Your task to perform on an android device: delete a single message in the gmail app Image 0: 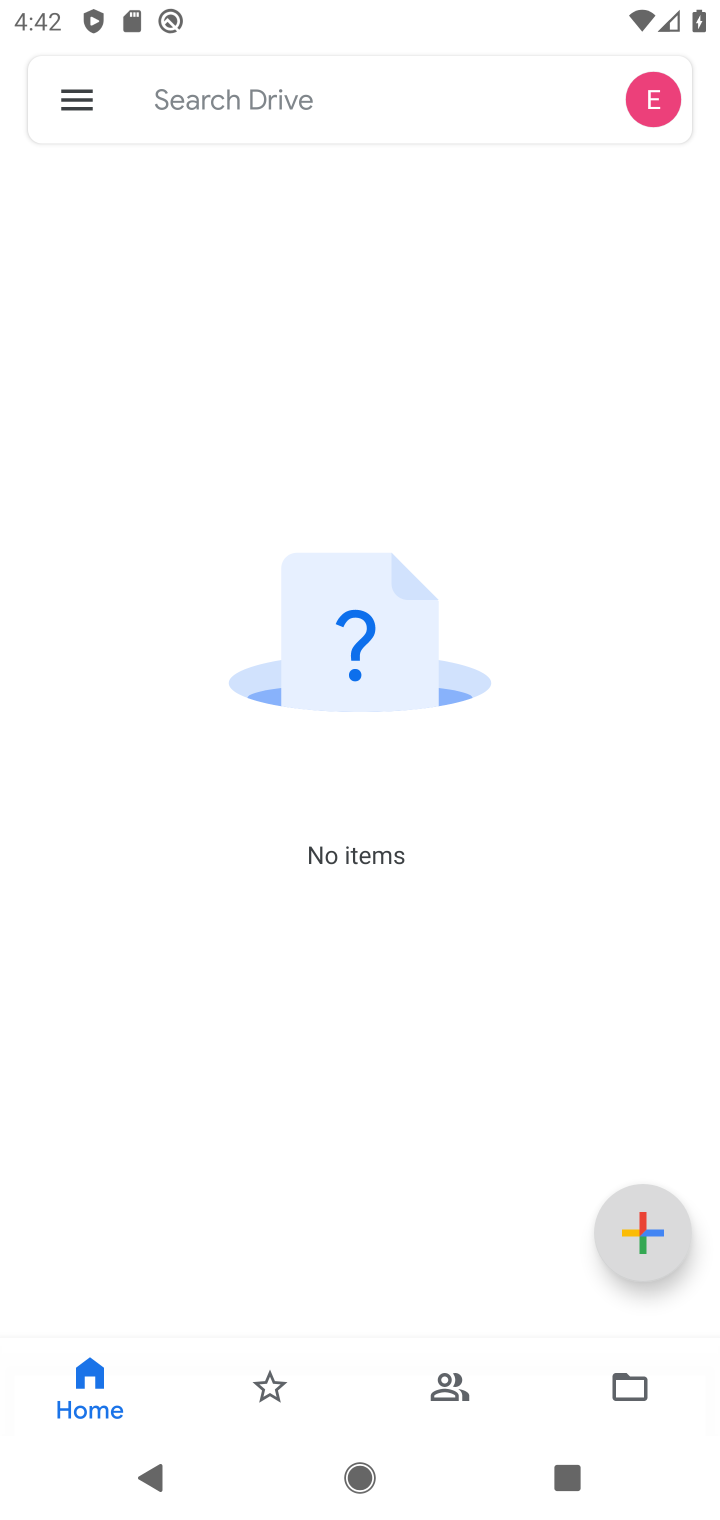
Step 0: press home button
Your task to perform on an android device: delete a single message in the gmail app Image 1: 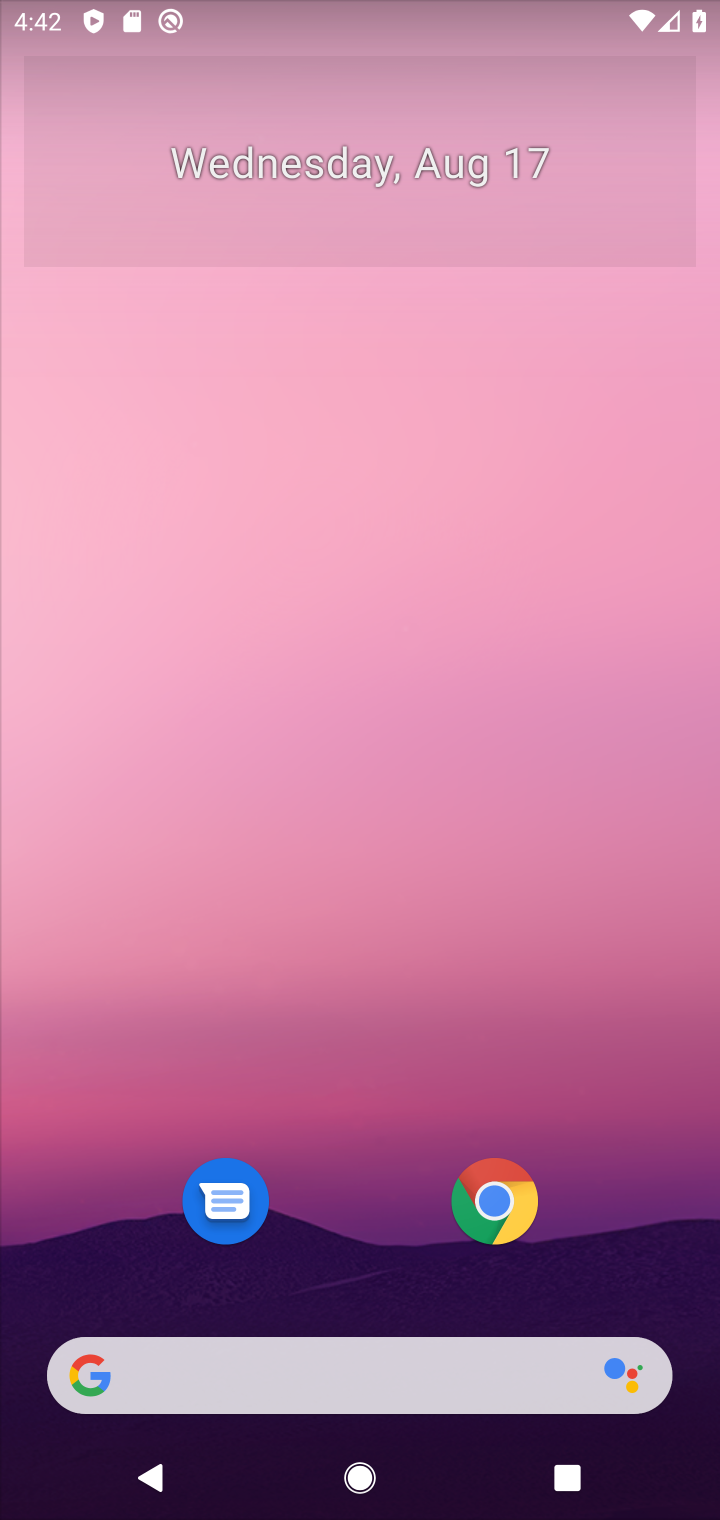
Step 1: drag from (351, 1213) to (436, 41)
Your task to perform on an android device: delete a single message in the gmail app Image 2: 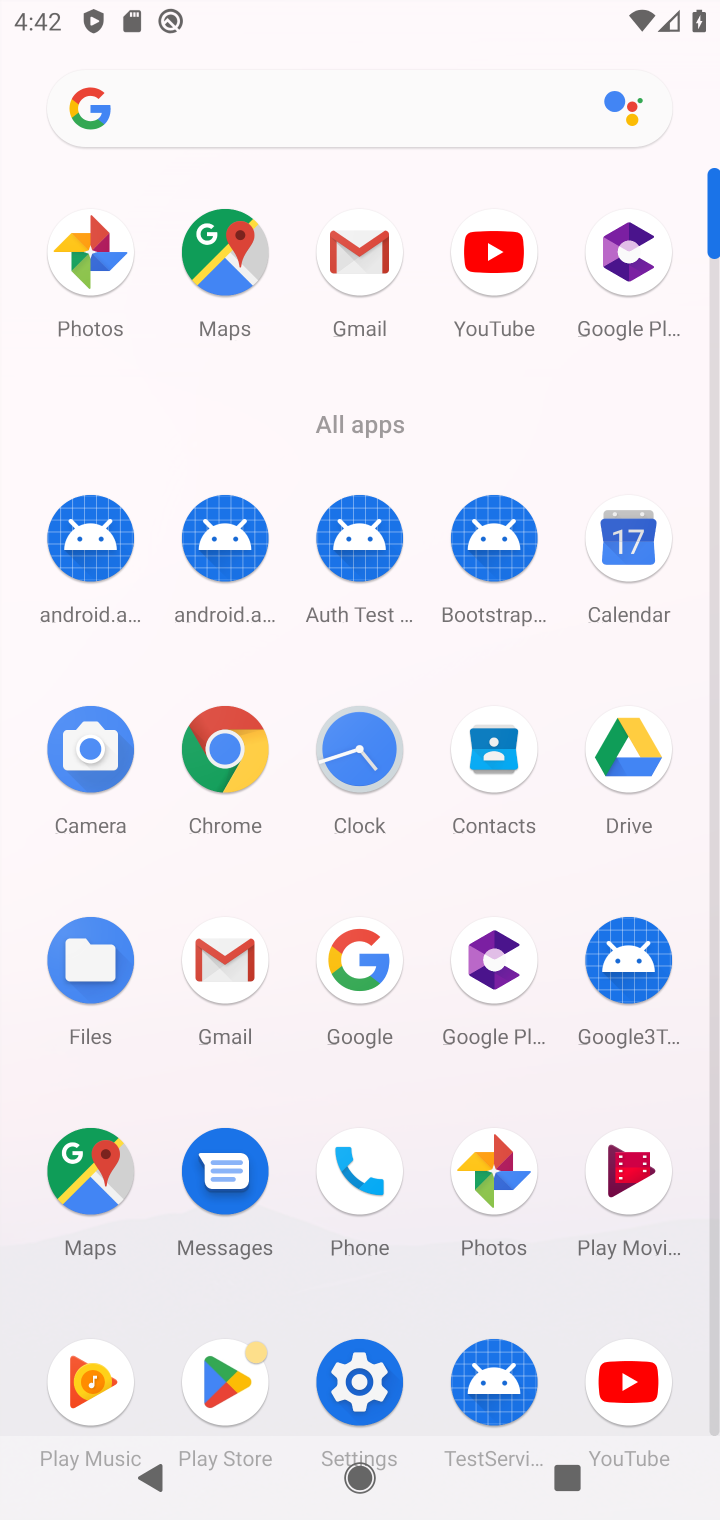
Step 2: click (371, 260)
Your task to perform on an android device: delete a single message in the gmail app Image 3: 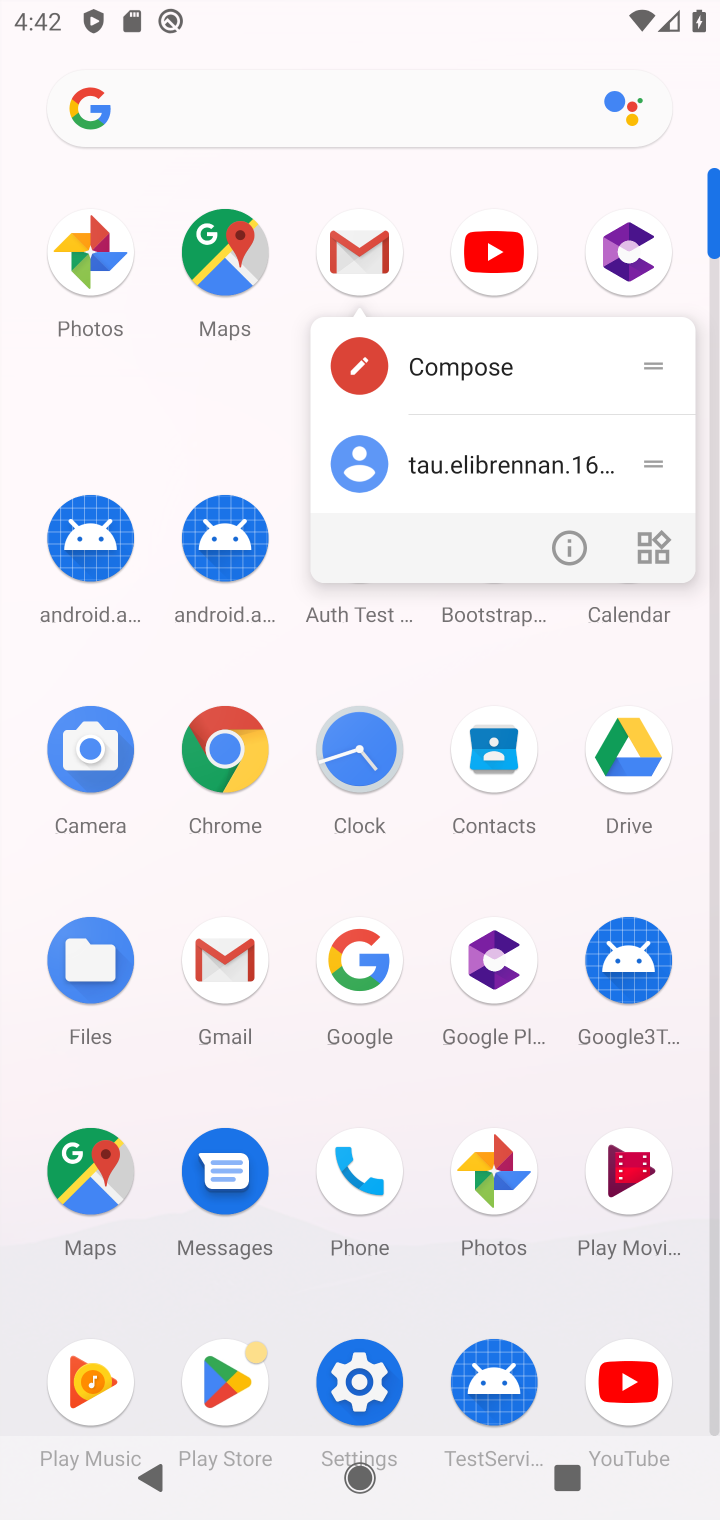
Step 3: click (371, 260)
Your task to perform on an android device: delete a single message in the gmail app Image 4: 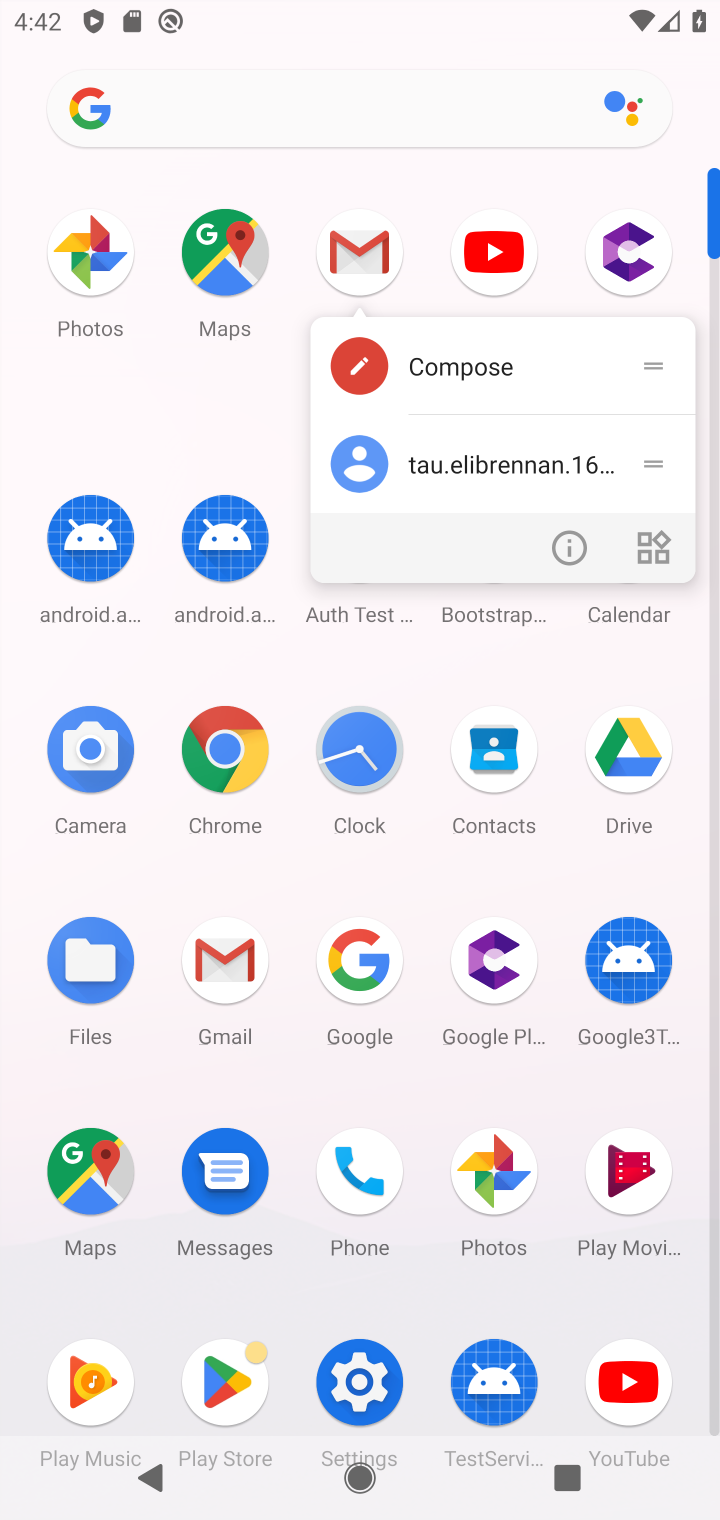
Step 4: click (371, 260)
Your task to perform on an android device: delete a single message in the gmail app Image 5: 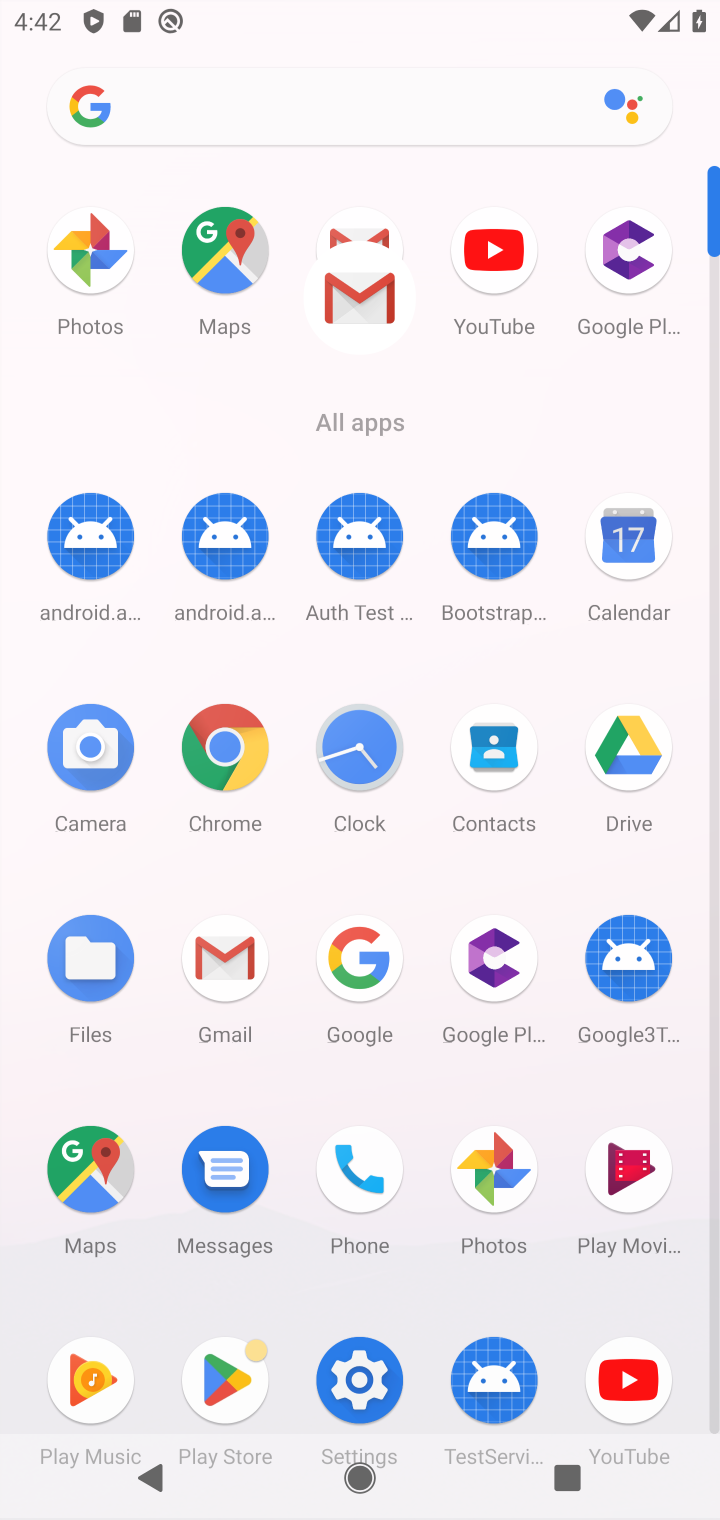
Step 5: click (371, 260)
Your task to perform on an android device: delete a single message in the gmail app Image 6: 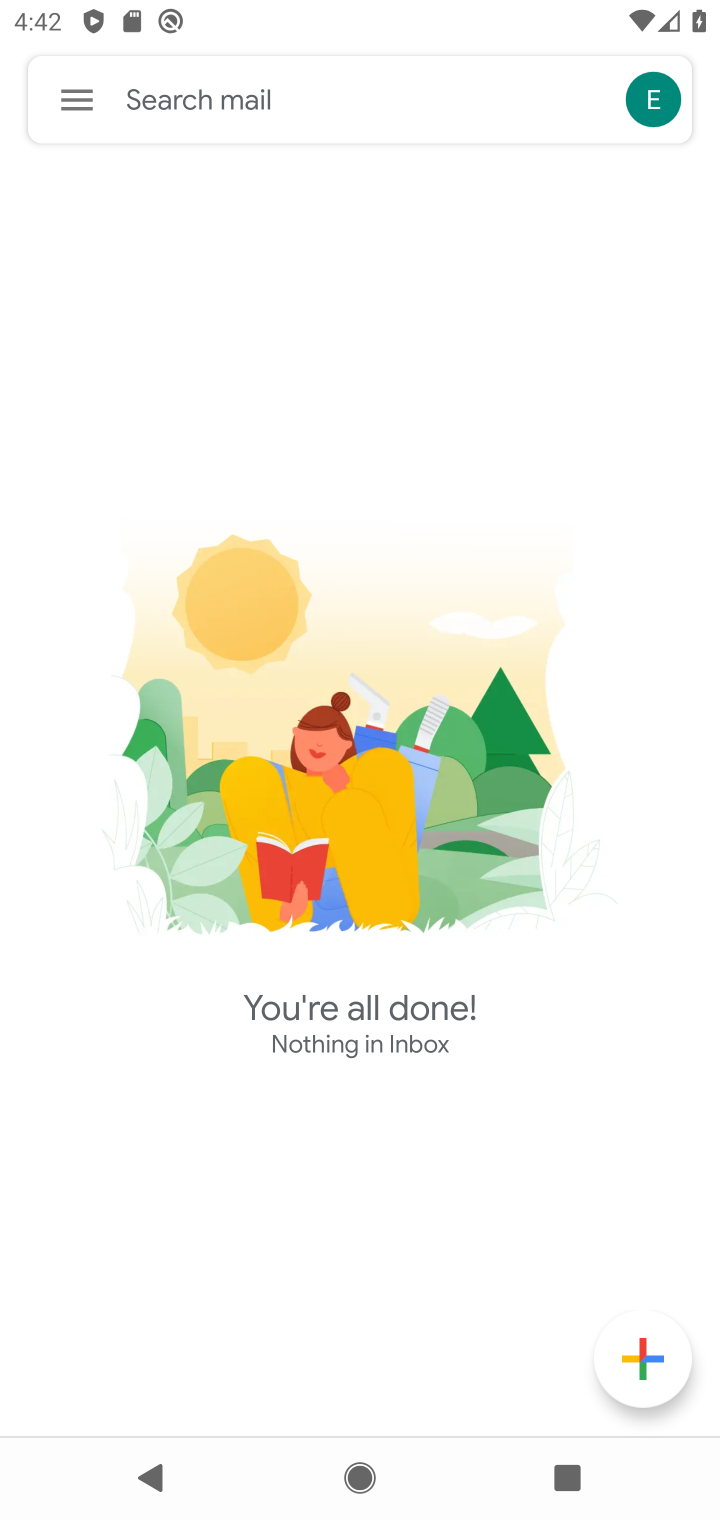
Step 6: click (65, 99)
Your task to perform on an android device: delete a single message in the gmail app Image 7: 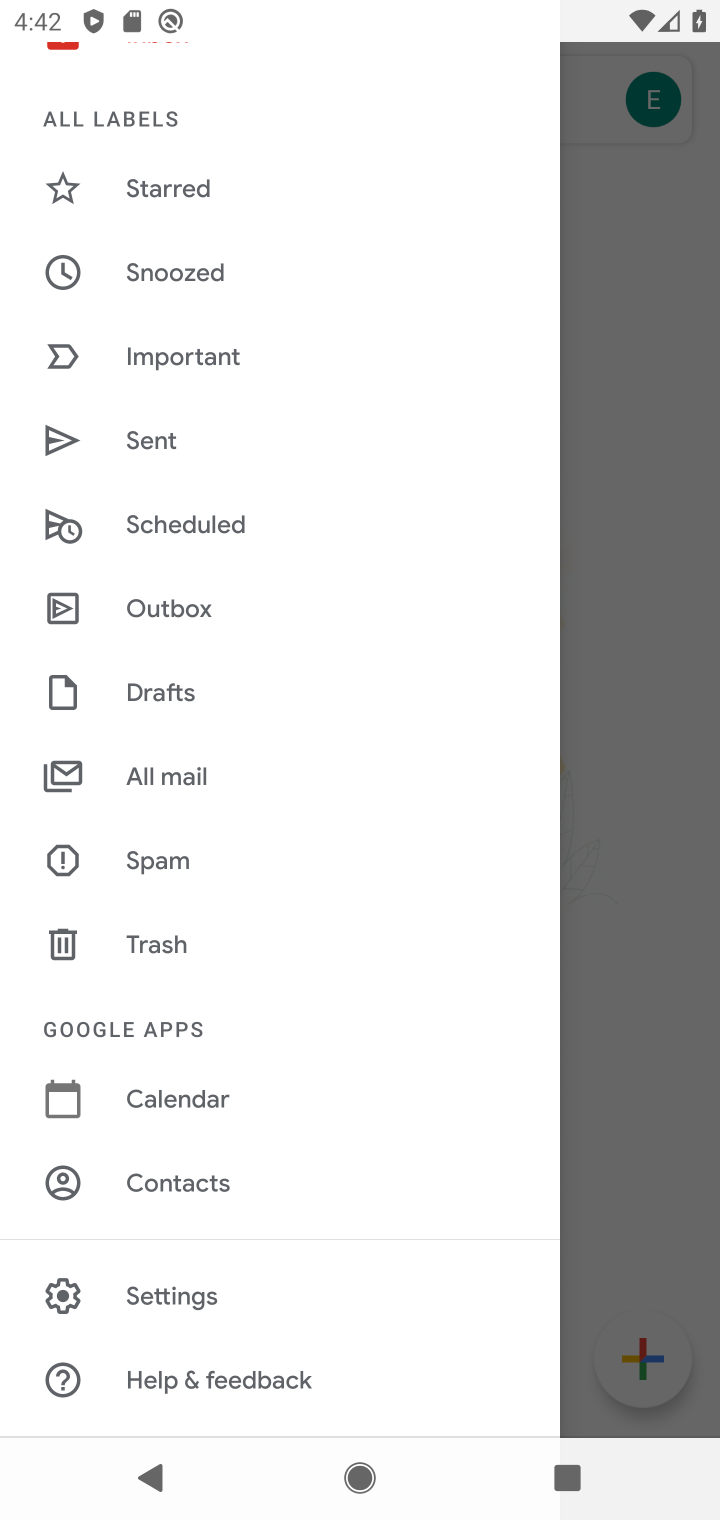
Step 7: click (172, 778)
Your task to perform on an android device: delete a single message in the gmail app Image 8: 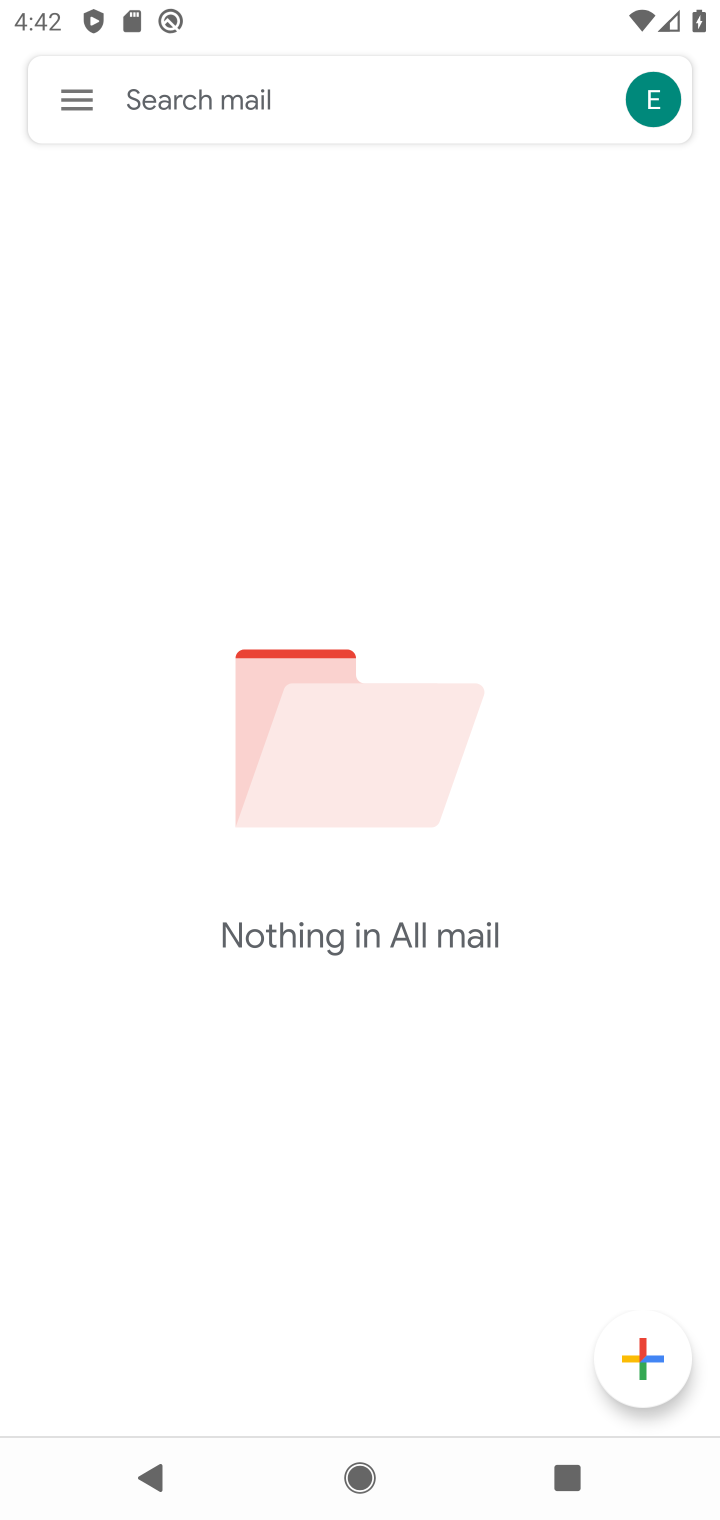
Step 8: task complete